Your task to perform on an android device: What is the recent news? Image 0: 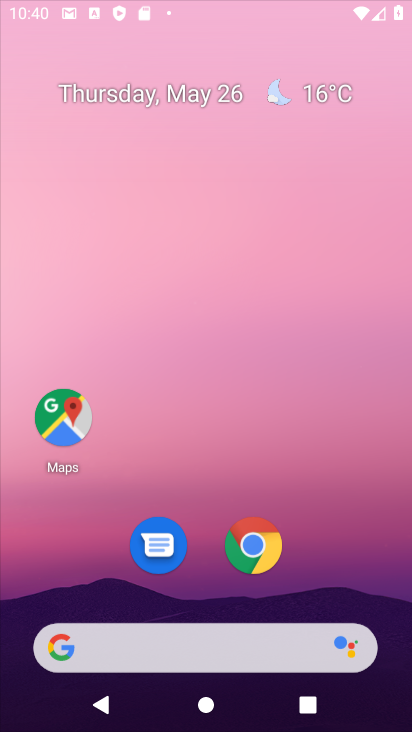
Step 0: press home button
Your task to perform on an android device: What is the recent news? Image 1: 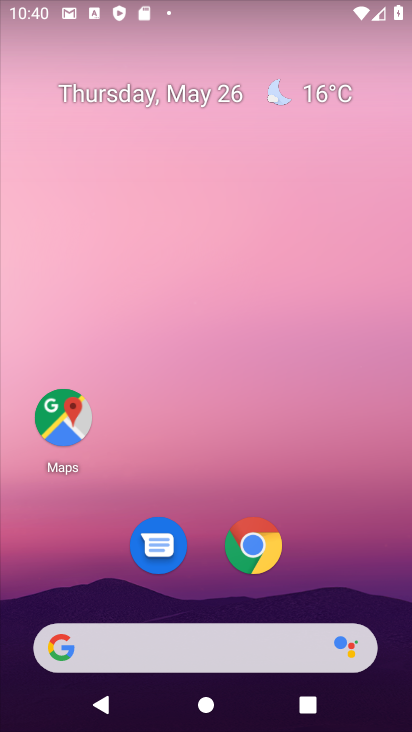
Step 1: click (64, 639)
Your task to perform on an android device: What is the recent news? Image 2: 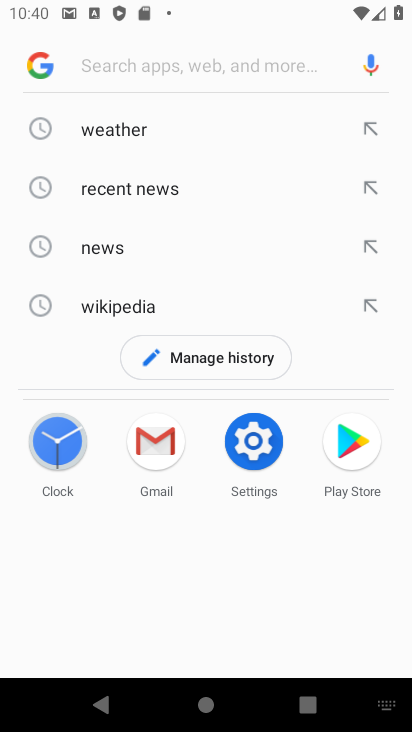
Step 2: click (125, 192)
Your task to perform on an android device: What is the recent news? Image 3: 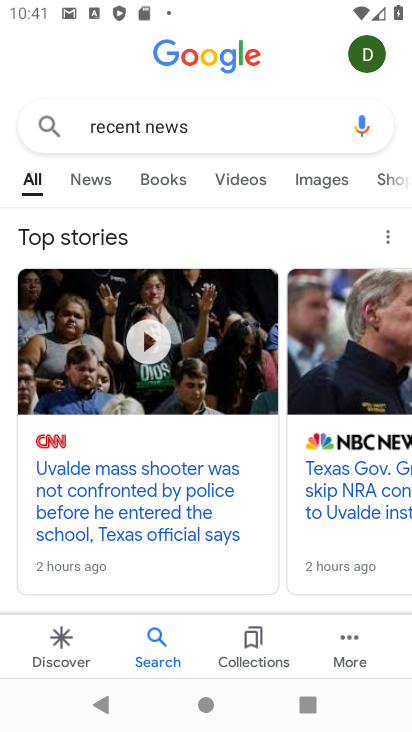
Step 3: task complete